Your task to perform on an android device: turn on improve location accuracy Image 0: 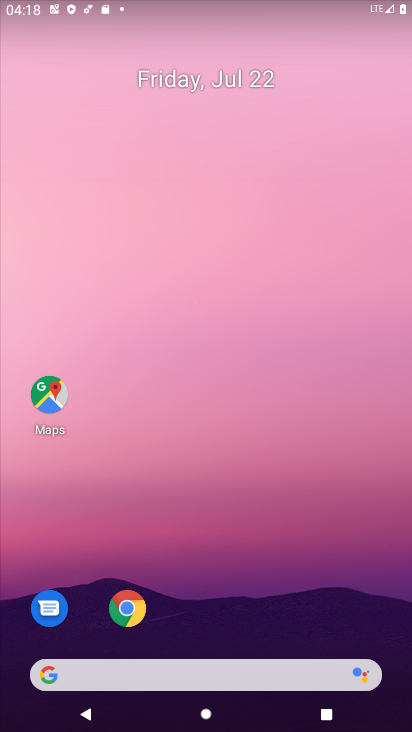
Step 0: drag from (233, 730) to (245, 79)
Your task to perform on an android device: turn on improve location accuracy Image 1: 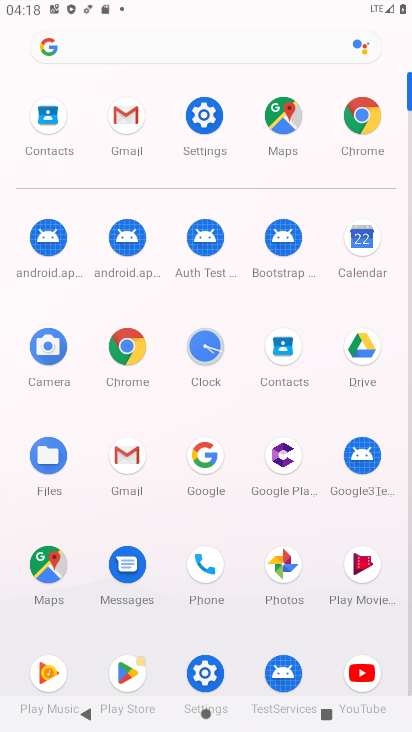
Step 1: click (207, 112)
Your task to perform on an android device: turn on improve location accuracy Image 2: 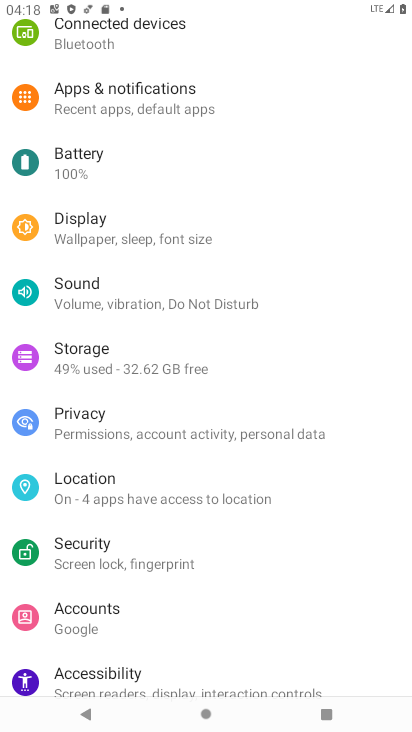
Step 2: click (81, 480)
Your task to perform on an android device: turn on improve location accuracy Image 3: 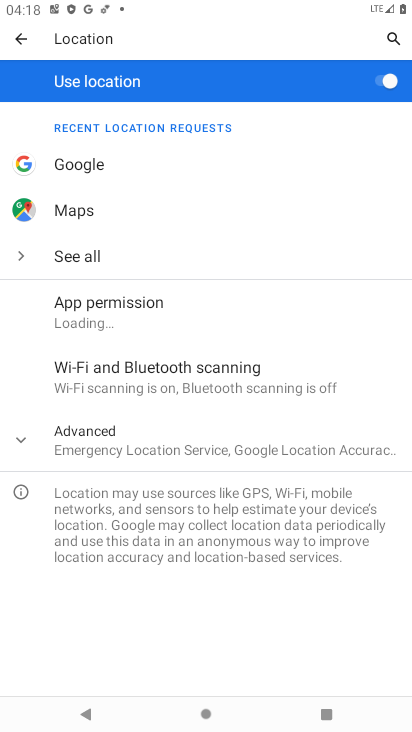
Step 3: click (138, 446)
Your task to perform on an android device: turn on improve location accuracy Image 4: 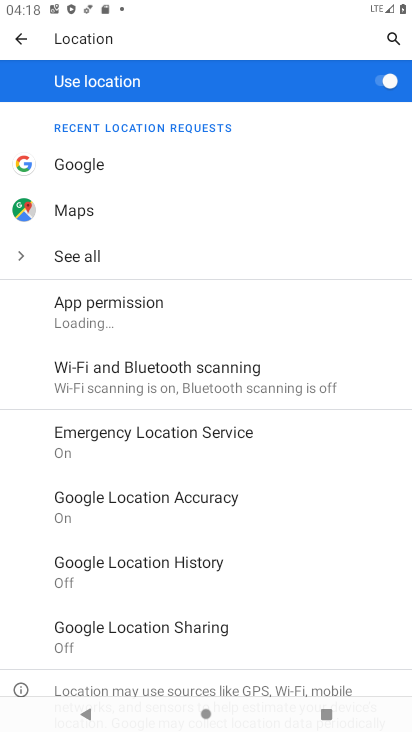
Step 4: click (186, 501)
Your task to perform on an android device: turn on improve location accuracy Image 5: 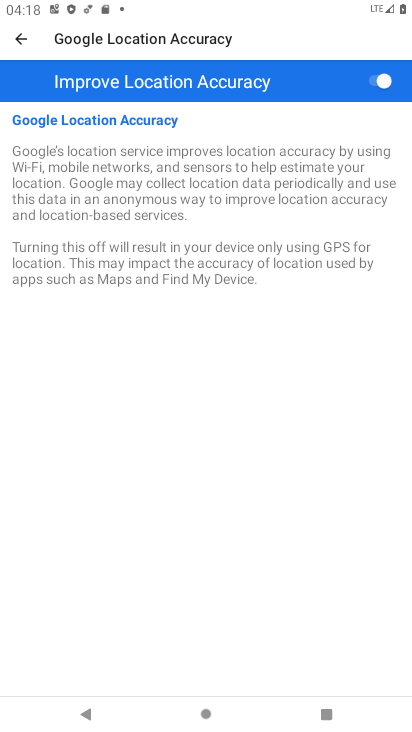
Step 5: task complete